Your task to perform on an android device: manage bookmarks in the chrome app Image 0: 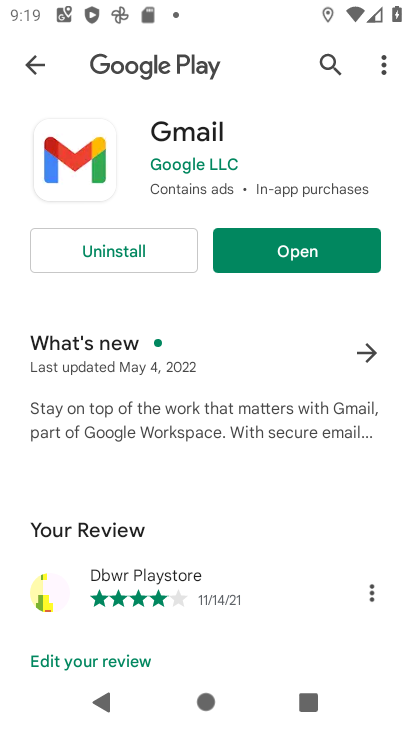
Step 0: press home button
Your task to perform on an android device: manage bookmarks in the chrome app Image 1: 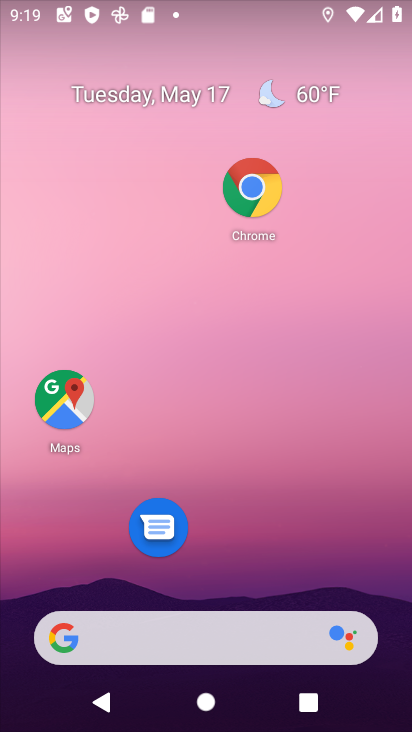
Step 1: click (261, 214)
Your task to perform on an android device: manage bookmarks in the chrome app Image 2: 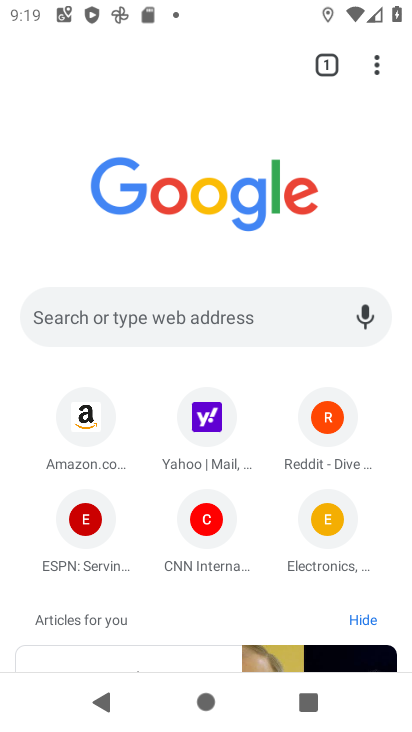
Step 2: click (376, 66)
Your task to perform on an android device: manage bookmarks in the chrome app Image 3: 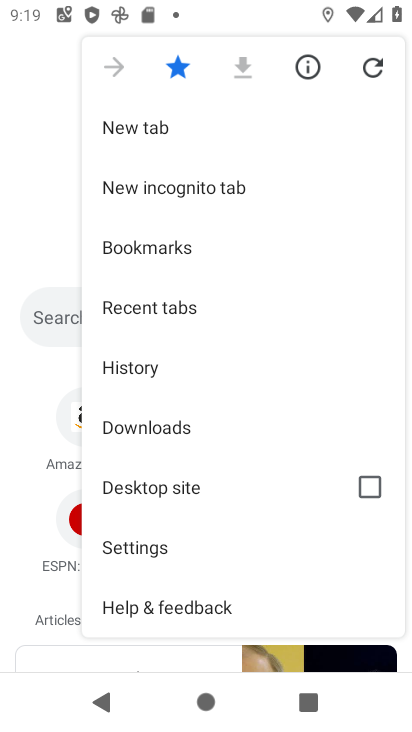
Step 3: click (177, 547)
Your task to perform on an android device: manage bookmarks in the chrome app Image 4: 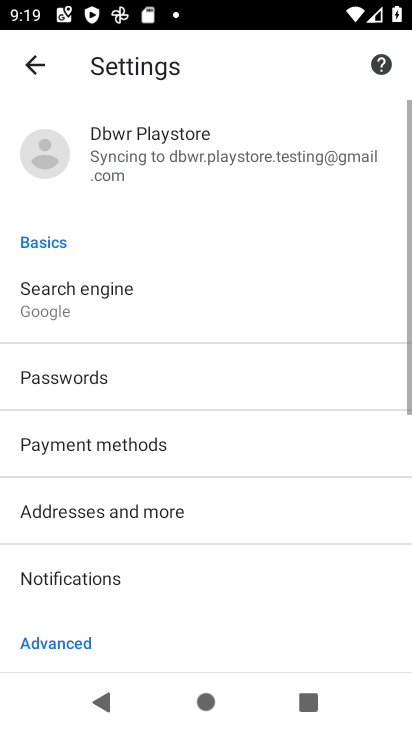
Step 4: drag from (177, 547) to (201, 259)
Your task to perform on an android device: manage bookmarks in the chrome app Image 5: 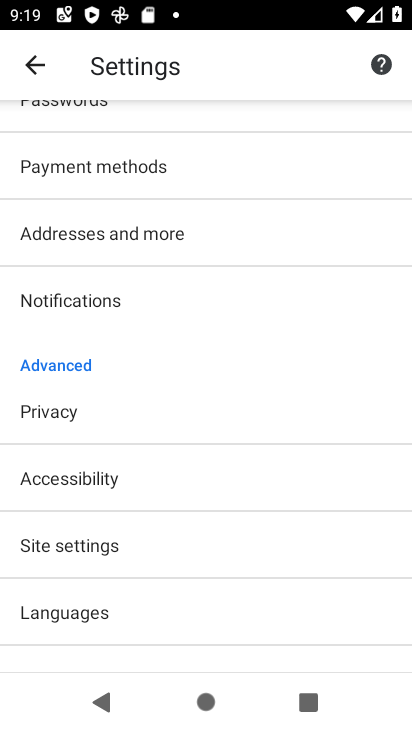
Step 5: drag from (123, 218) to (123, 586)
Your task to perform on an android device: manage bookmarks in the chrome app Image 6: 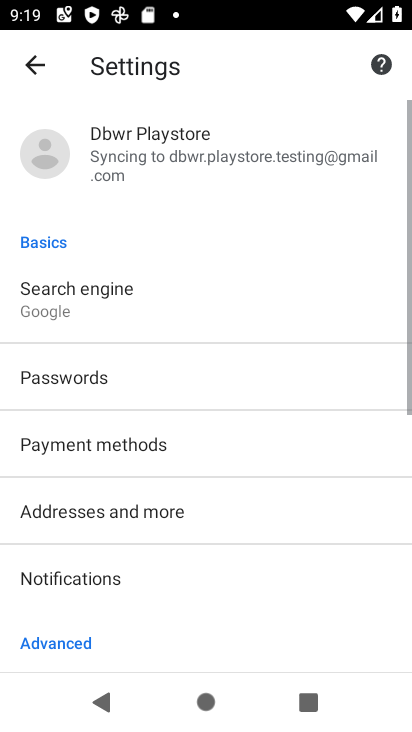
Step 6: click (40, 67)
Your task to perform on an android device: manage bookmarks in the chrome app Image 7: 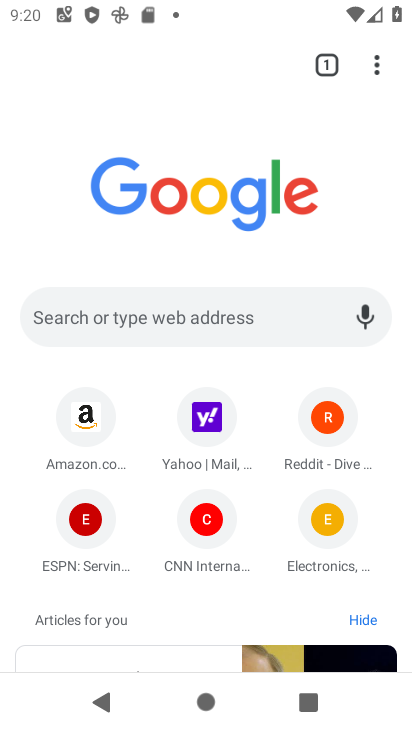
Step 7: click (377, 62)
Your task to perform on an android device: manage bookmarks in the chrome app Image 8: 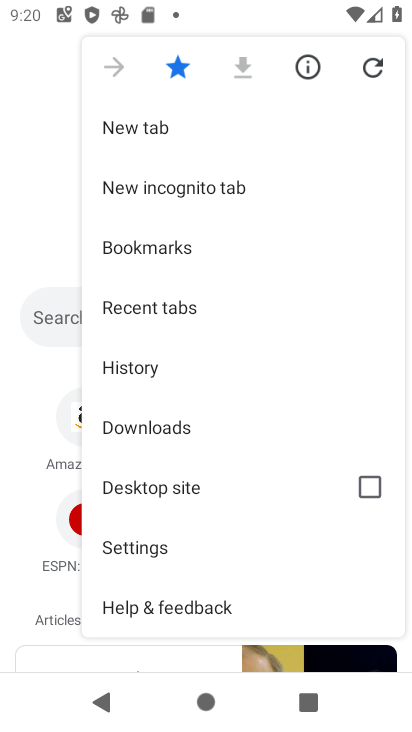
Step 8: click (171, 247)
Your task to perform on an android device: manage bookmarks in the chrome app Image 9: 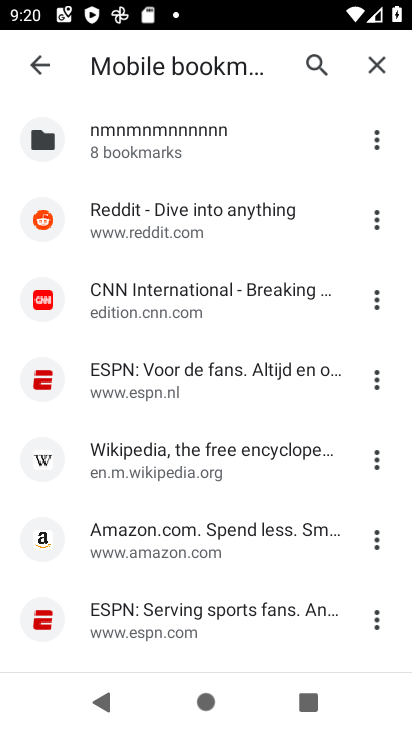
Step 9: click (370, 135)
Your task to perform on an android device: manage bookmarks in the chrome app Image 10: 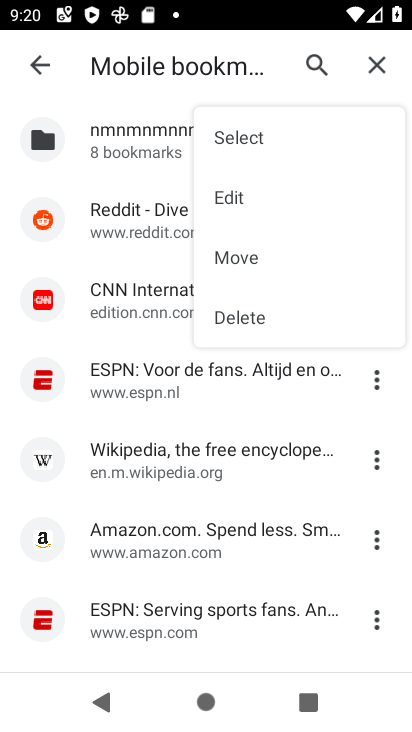
Step 10: click (274, 316)
Your task to perform on an android device: manage bookmarks in the chrome app Image 11: 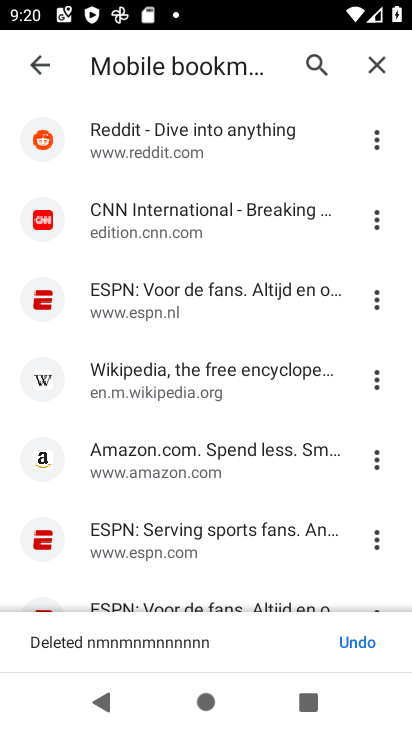
Step 11: task complete